Your task to perform on an android device: Open network settings Image 0: 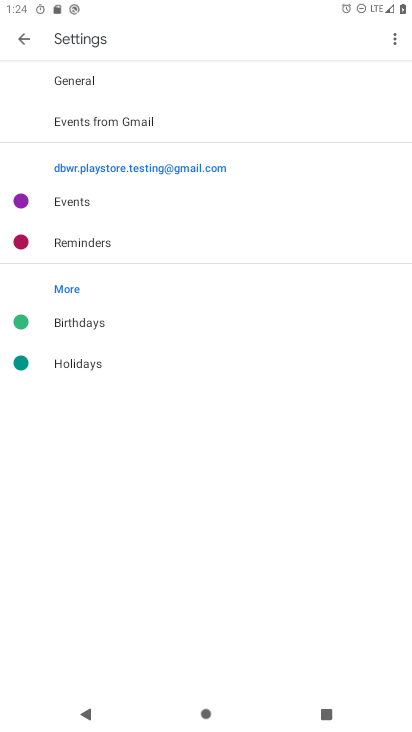
Step 0: press home button
Your task to perform on an android device: Open network settings Image 1: 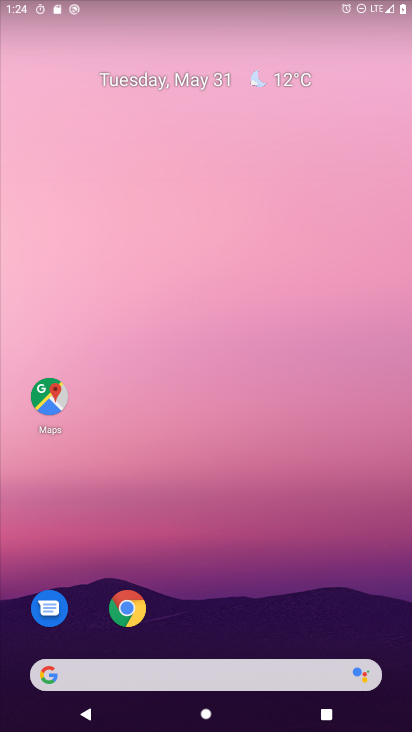
Step 1: drag from (248, 644) to (269, 8)
Your task to perform on an android device: Open network settings Image 2: 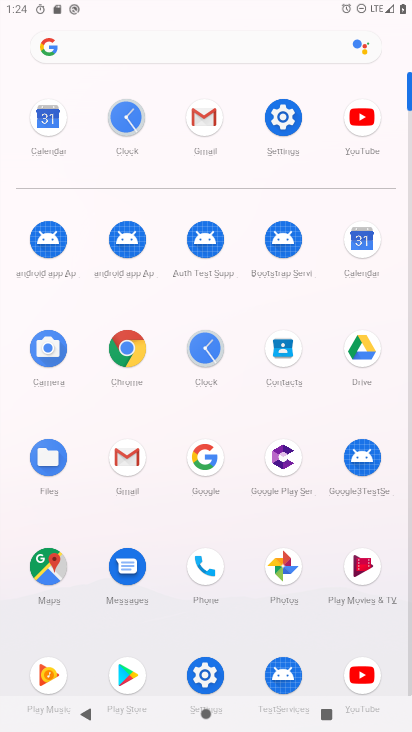
Step 2: click (280, 116)
Your task to perform on an android device: Open network settings Image 3: 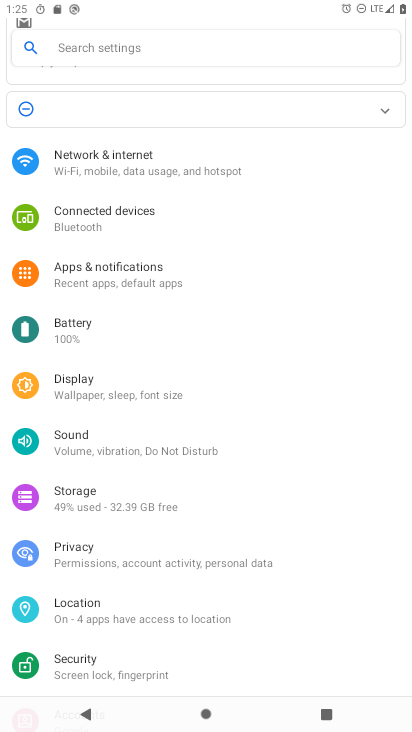
Step 3: click (105, 164)
Your task to perform on an android device: Open network settings Image 4: 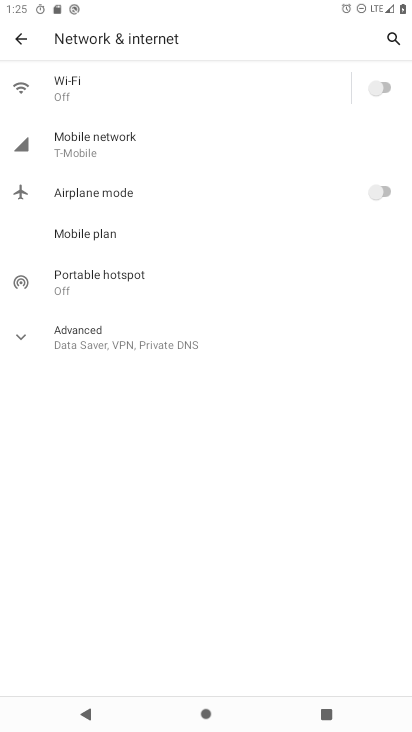
Step 4: click (88, 150)
Your task to perform on an android device: Open network settings Image 5: 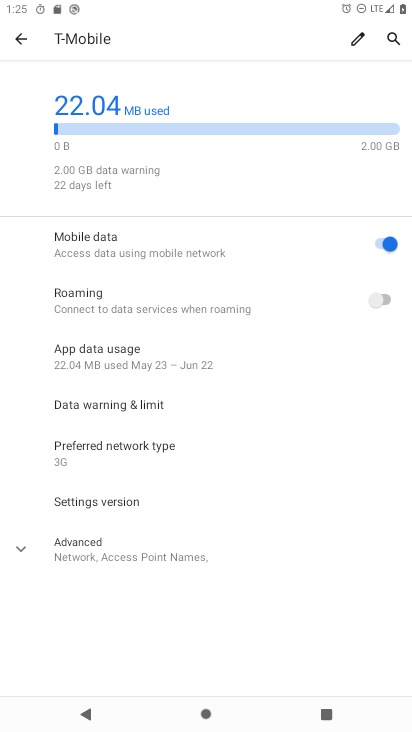
Step 5: click (22, 552)
Your task to perform on an android device: Open network settings Image 6: 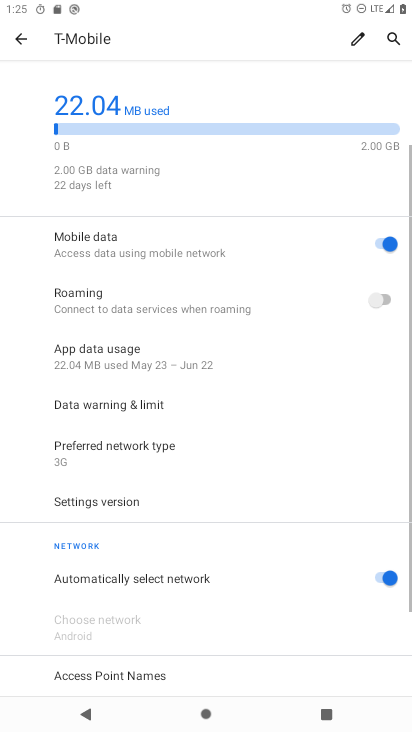
Step 6: task complete